Your task to perform on an android device: How do I get to the nearest T-Mobile Store? Image 0: 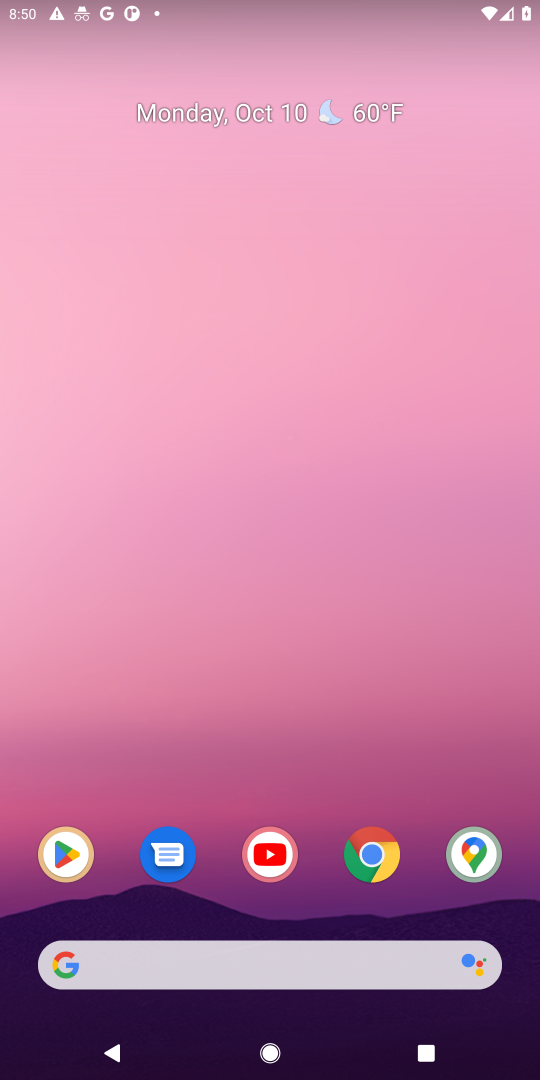
Step 0: click (382, 859)
Your task to perform on an android device: How do I get to the nearest T-Mobile Store? Image 1: 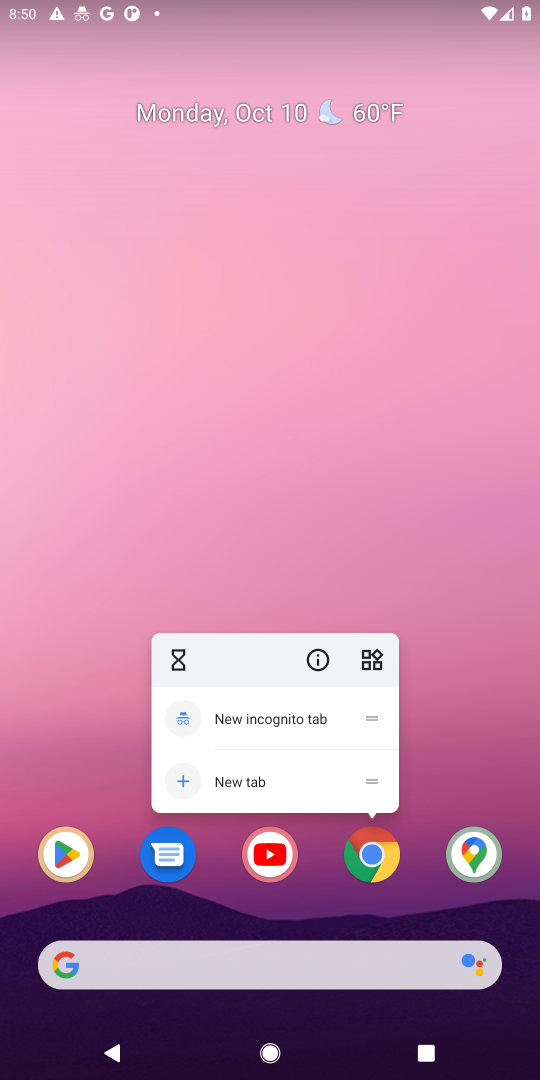
Step 1: click (365, 847)
Your task to perform on an android device: How do I get to the nearest T-Mobile Store? Image 2: 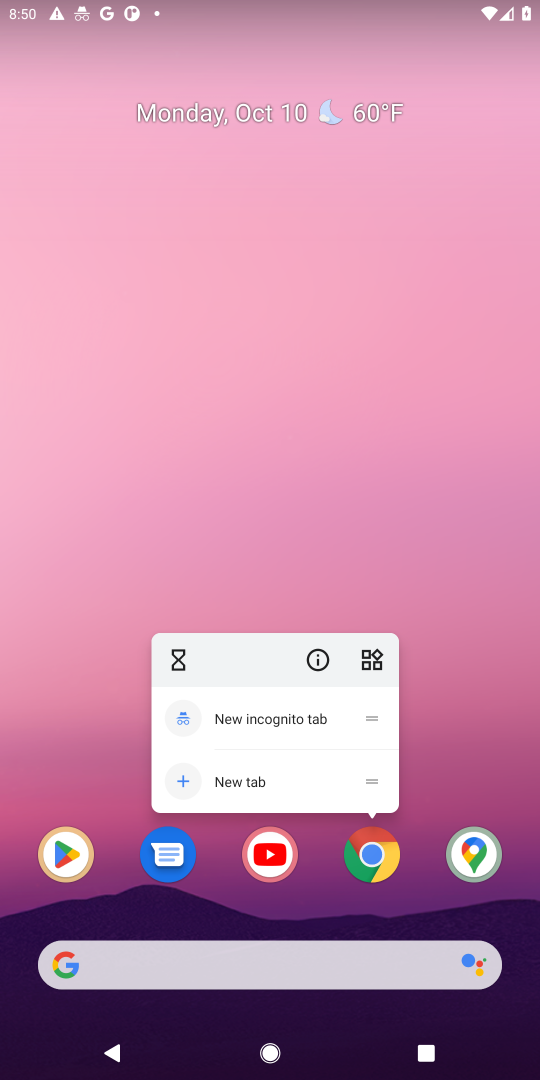
Step 2: click (374, 850)
Your task to perform on an android device: How do I get to the nearest T-Mobile Store? Image 3: 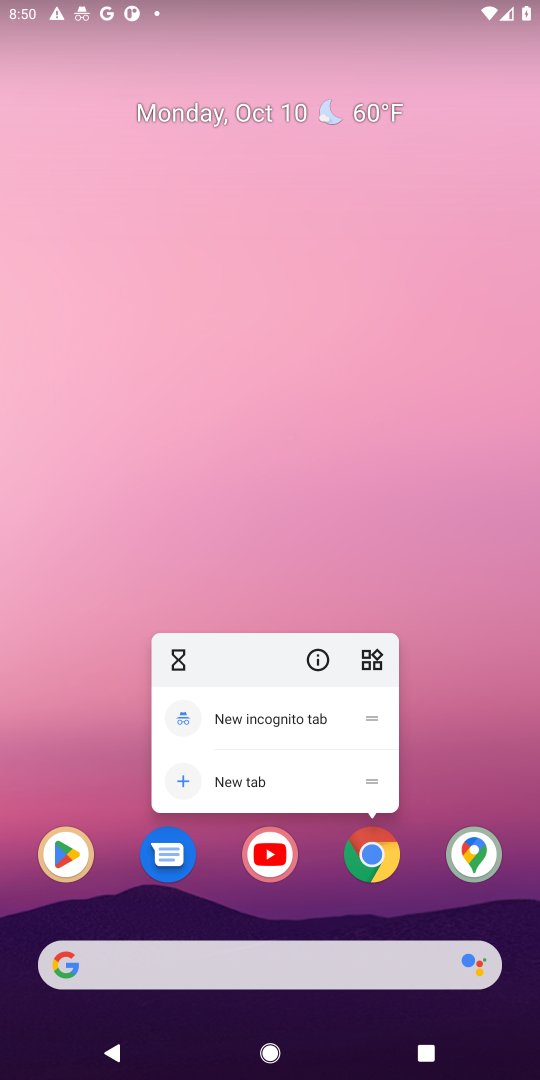
Step 3: click (374, 851)
Your task to perform on an android device: How do I get to the nearest T-Mobile Store? Image 4: 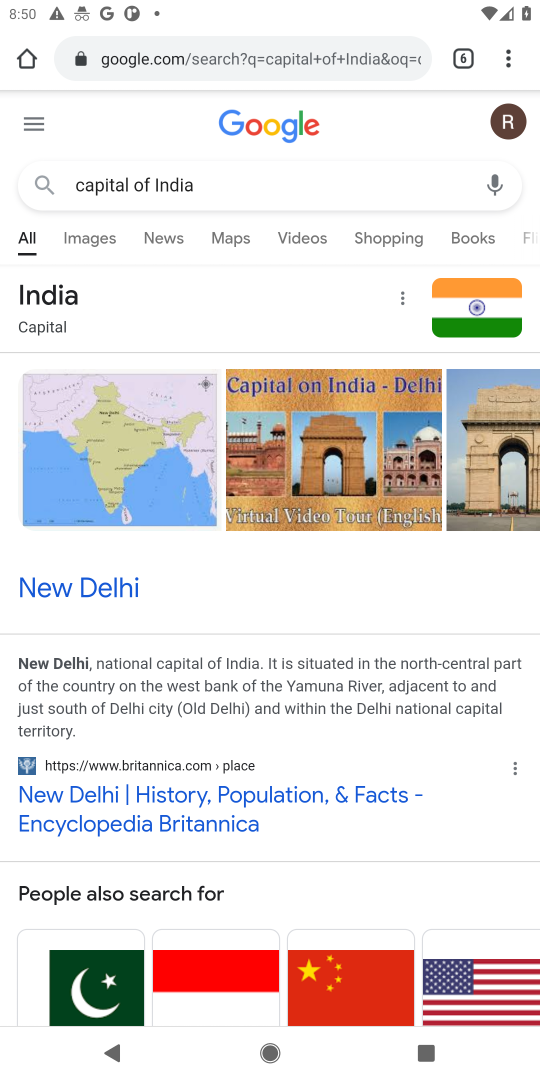
Step 4: click (369, 59)
Your task to perform on an android device: How do I get to the nearest T-Mobile Store? Image 5: 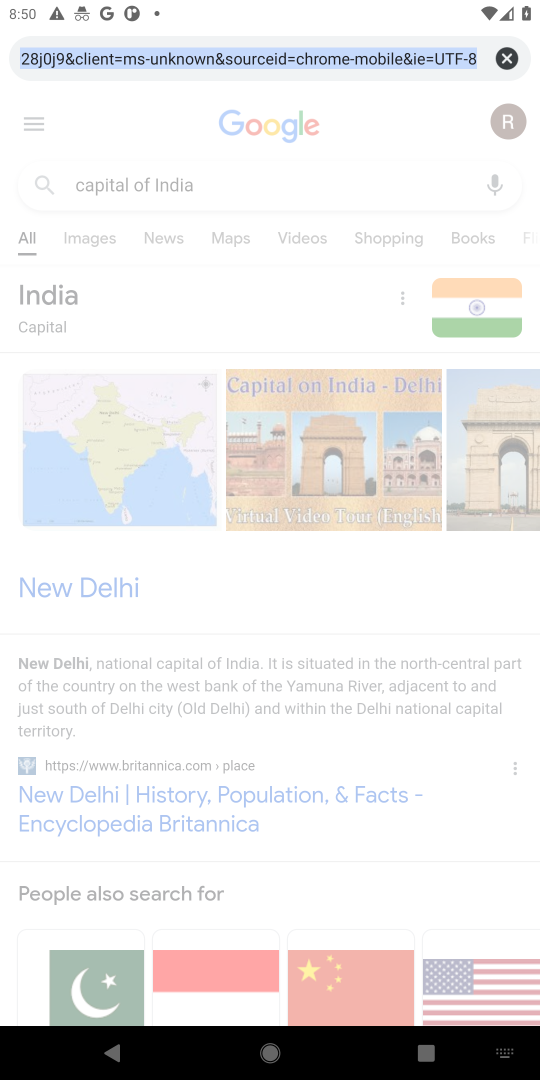
Step 5: click (503, 51)
Your task to perform on an android device: How do I get to the nearest T-Mobile Store? Image 6: 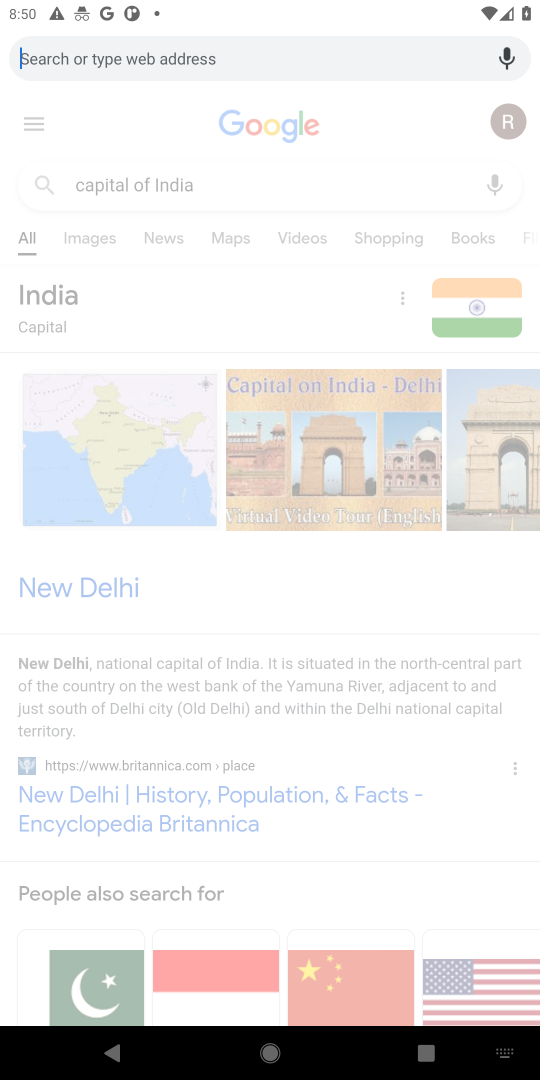
Step 6: type "nearest T-Mobile Store"
Your task to perform on an android device: How do I get to the nearest T-Mobile Store? Image 7: 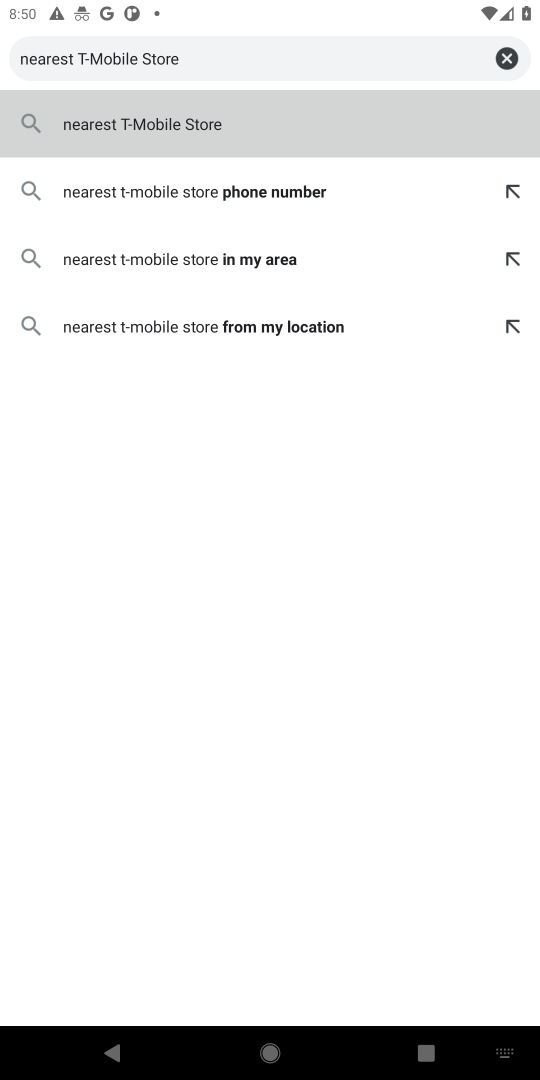
Step 7: press enter
Your task to perform on an android device: How do I get to the nearest T-Mobile Store? Image 8: 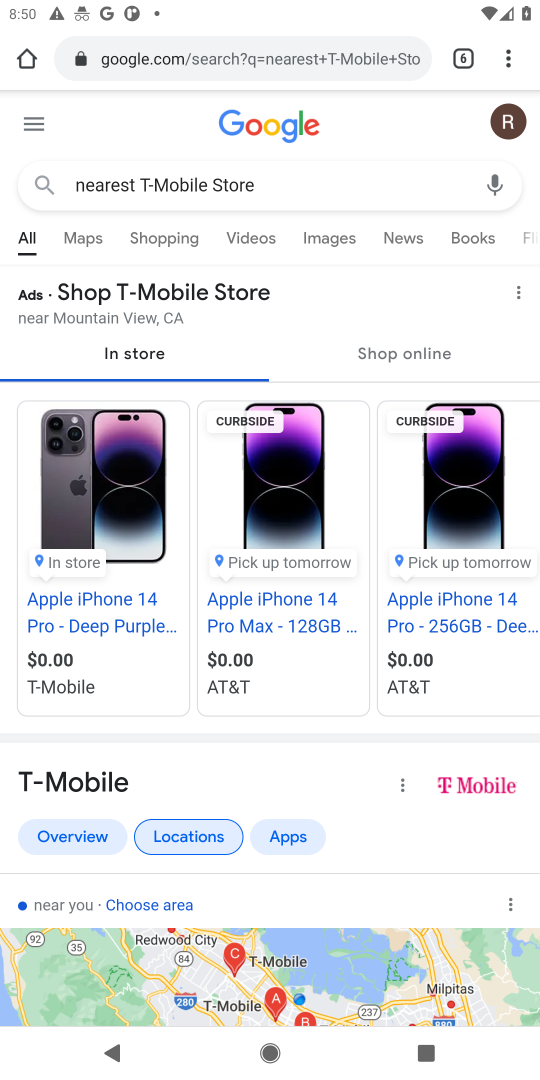
Step 8: drag from (148, 998) to (382, 394)
Your task to perform on an android device: How do I get to the nearest T-Mobile Store? Image 9: 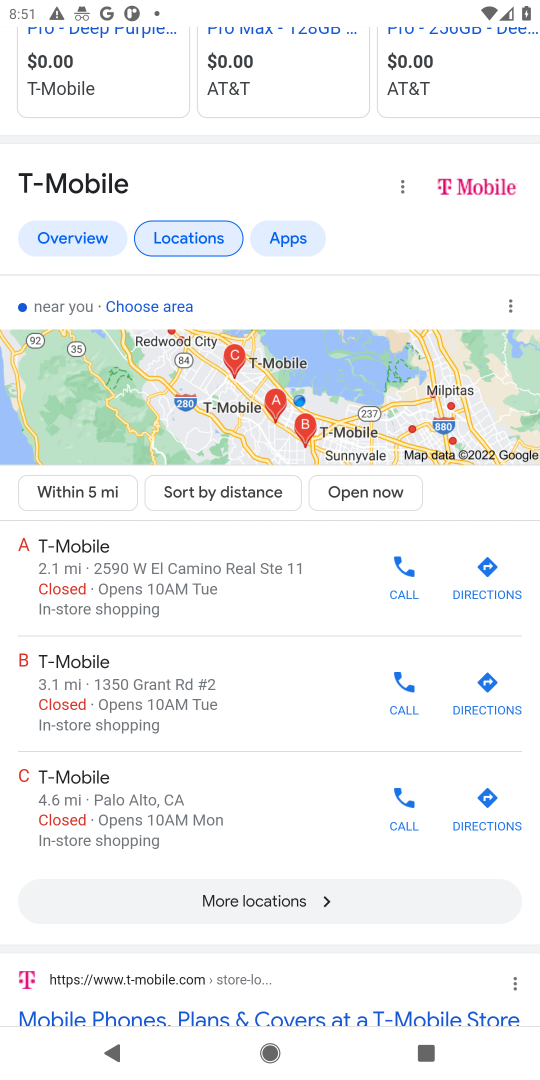
Step 9: drag from (231, 849) to (457, 173)
Your task to perform on an android device: How do I get to the nearest T-Mobile Store? Image 10: 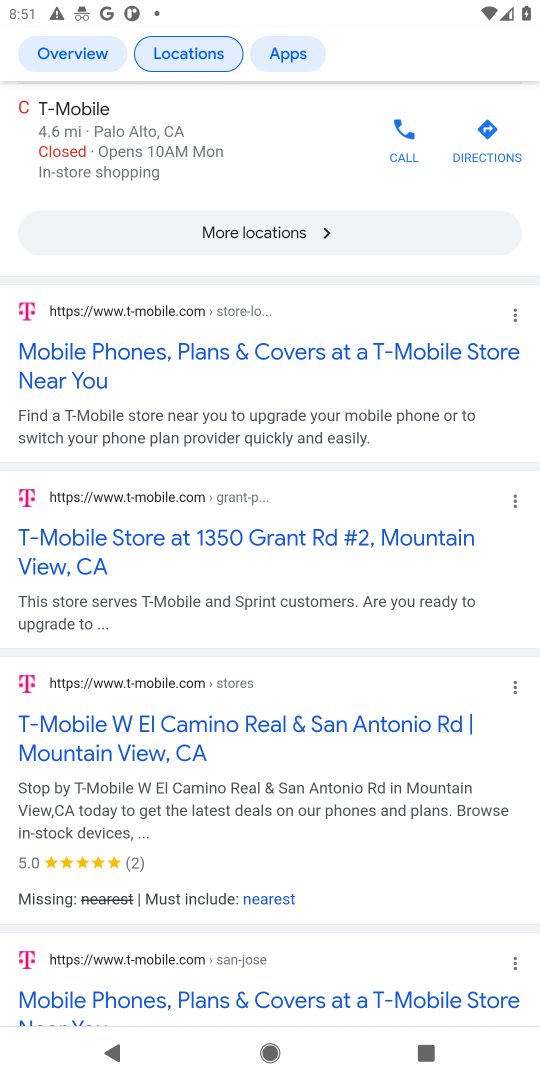
Step 10: drag from (330, 408) to (243, 995)
Your task to perform on an android device: How do I get to the nearest T-Mobile Store? Image 11: 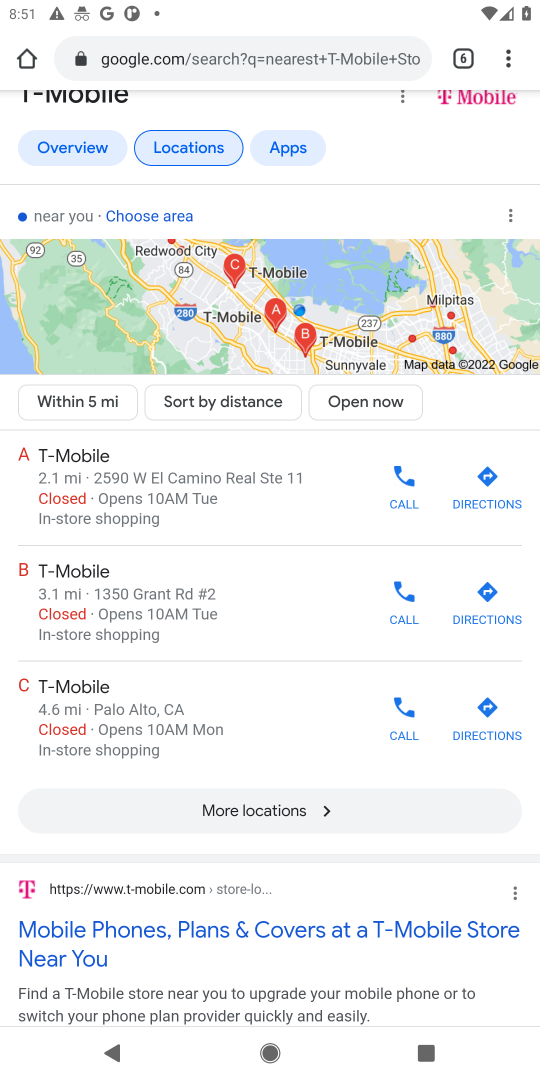
Step 11: click (207, 484)
Your task to perform on an android device: How do I get to the nearest T-Mobile Store? Image 12: 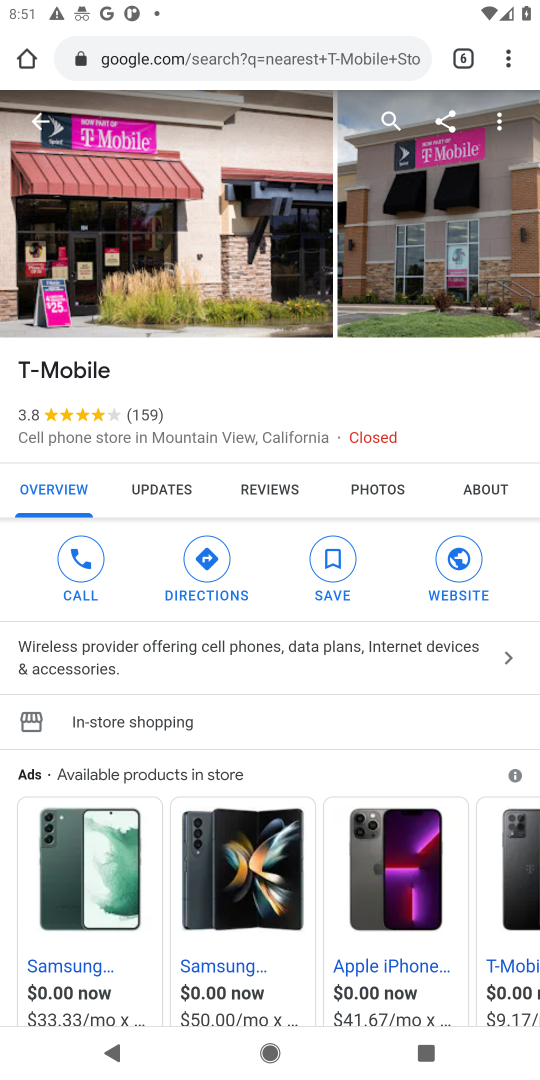
Step 12: task complete